Your task to perform on an android device: snooze an email in the gmail app Image 0: 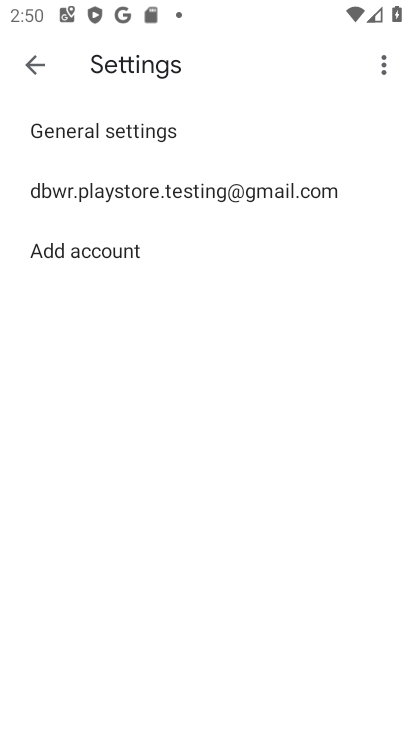
Step 0: press back button
Your task to perform on an android device: snooze an email in the gmail app Image 1: 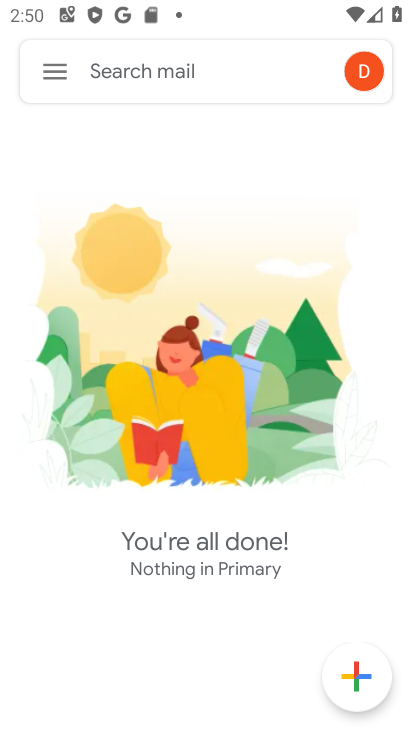
Step 1: click (41, 67)
Your task to perform on an android device: snooze an email in the gmail app Image 2: 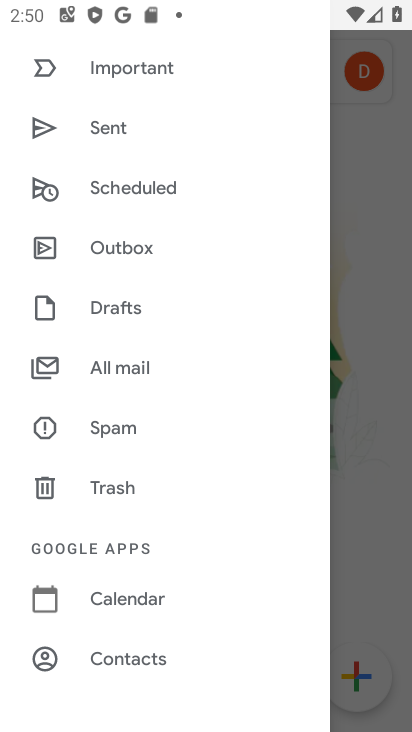
Step 2: drag from (198, 205) to (212, 578)
Your task to perform on an android device: snooze an email in the gmail app Image 3: 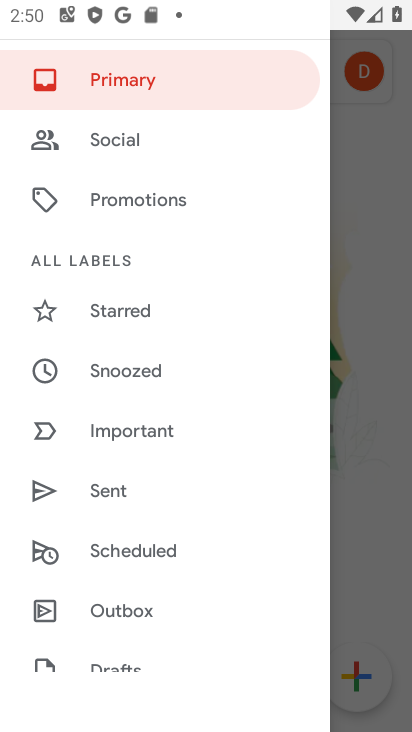
Step 3: click (150, 364)
Your task to perform on an android device: snooze an email in the gmail app Image 4: 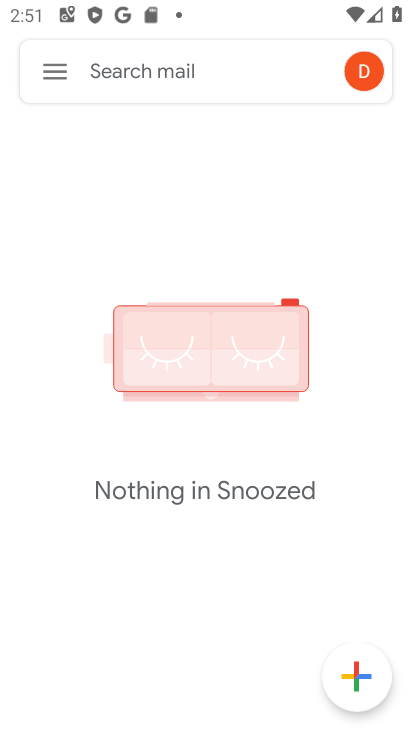
Step 4: task complete